Your task to perform on an android device: Open Maps and search for coffee Image 0: 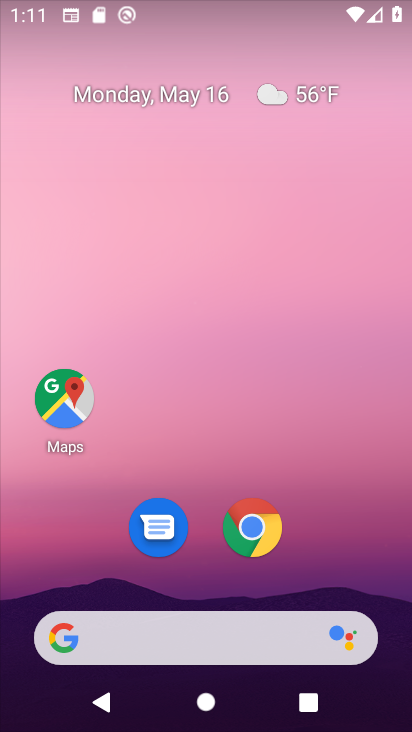
Step 0: click (70, 386)
Your task to perform on an android device: Open Maps and search for coffee Image 1: 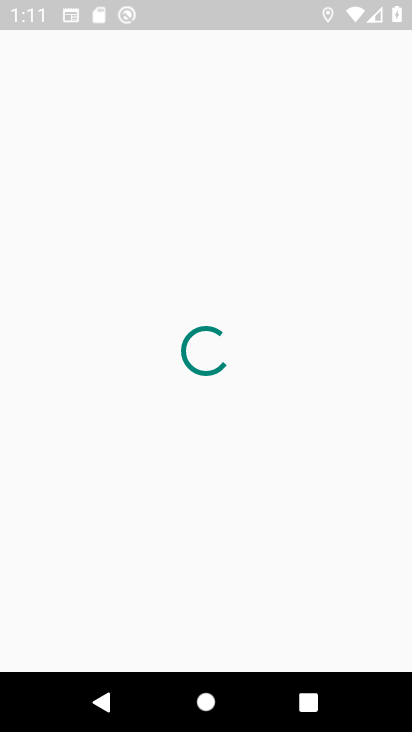
Step 1: click (224, 74)
Your task to perform on an android device: Open Maps and search for coffee Image 2: 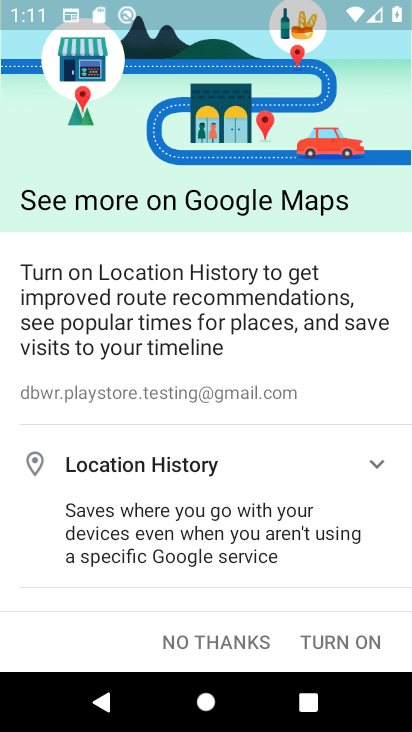
Step 2: click (369, 650)
Your task to perform on an android device: Open Maps and search for coffee Image 3: 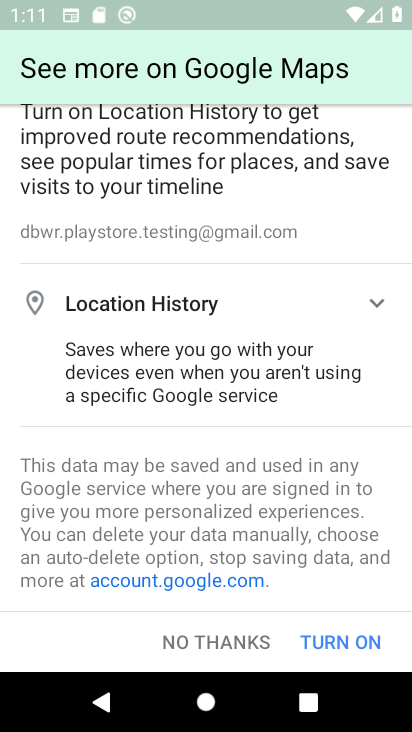
Step 3: click (369, 650)
Your task to perform on an android device: Open Maps and search for coffee Image 4: 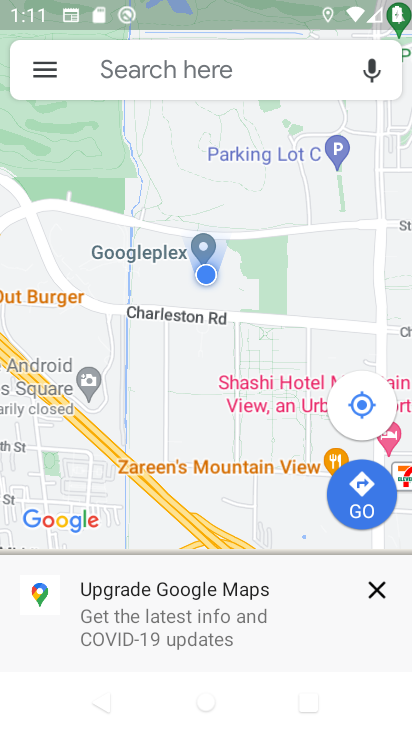
Step 4: click (233, 72)
Your task to perform on an android device: Open Maps and search for coffee Image 5: 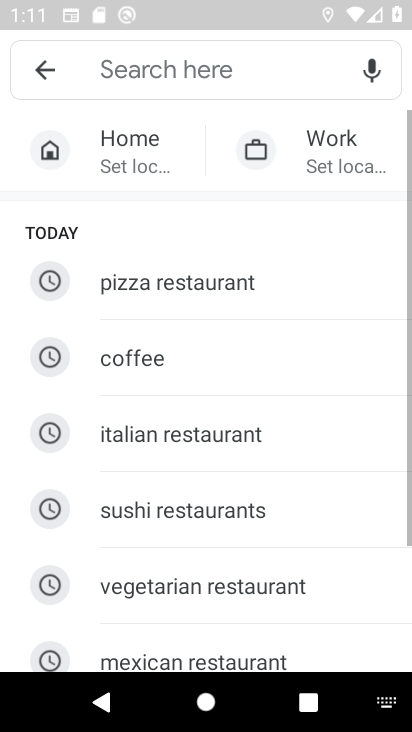
Step 5: click (196, 355)
Your task to perform on an android device: Open Maps and search for coffee Image 6: 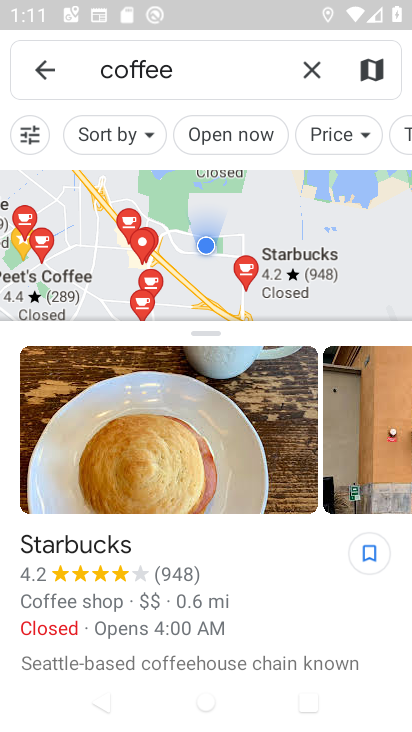
Step 6: task complete